Your task to perform on an android device: turn on priority inbox in the gmail app Image 0: 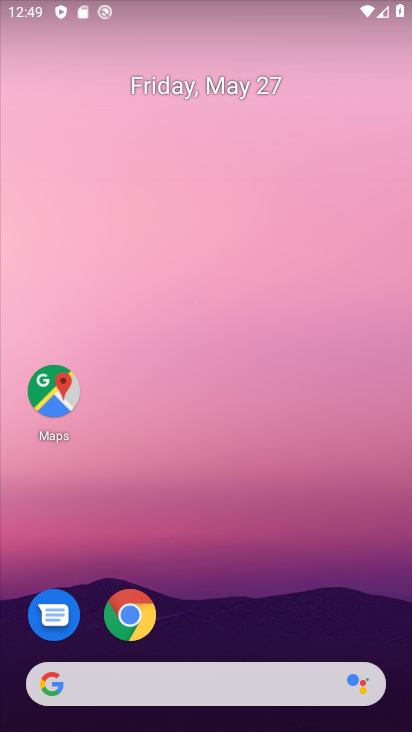
Step 0: drag from (259, 581) to (345, 194)
Your task to perform on an android device: turn on priority inbox in the gmail app Image 1: 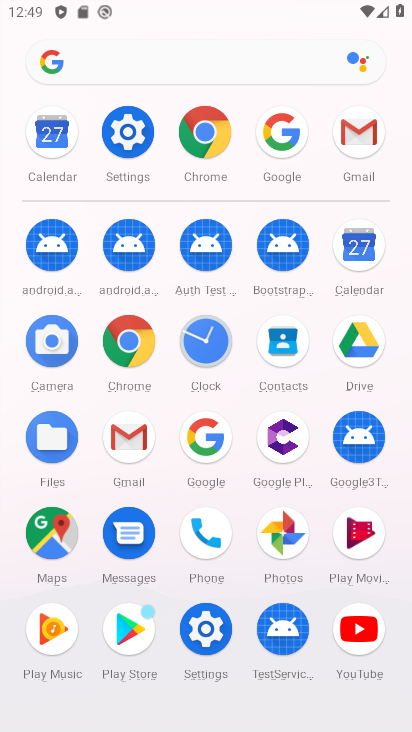
Step 1: click (142, 451)
Your task to perform on an android device: turn on priority inbox in the gmail app Image 2: 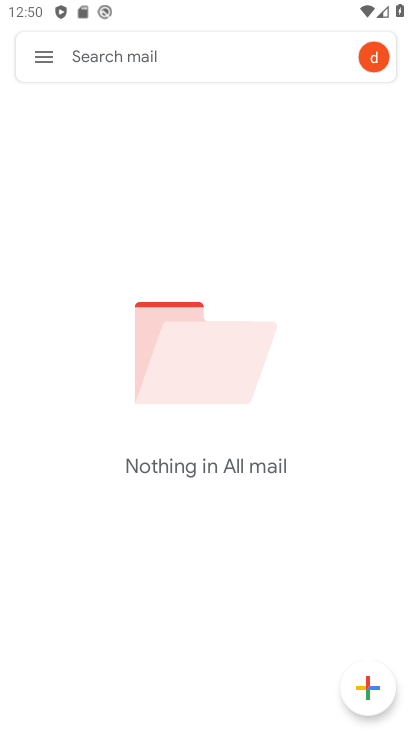
Step 2: click (35, 68)
Your task to perform on an android device: turn on priority inbox in the gmail app Image 3: 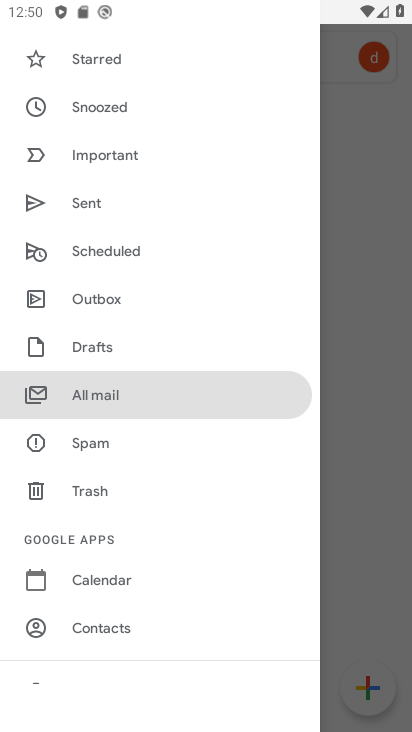
Step 3: drag from (93, 552) to (98, 245)
Your task to perform on an android device: turn on priority inbox in the gmail app Image 4: 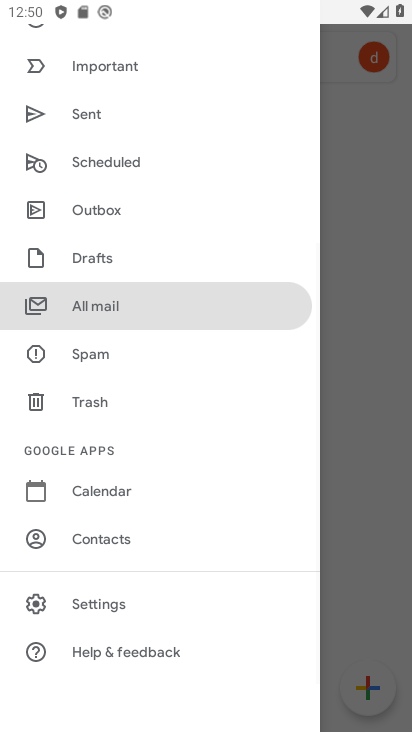
Step 4: click (100, 622)
Your task to perform on an android device: turn on priority inbox in the gmail app Image 5: 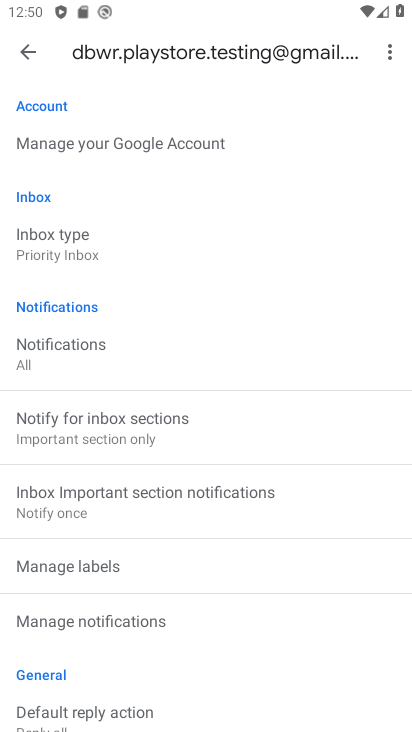
Step 5: task complete